Your task to perform on an android device: empty trash in the gmail app Image 0: 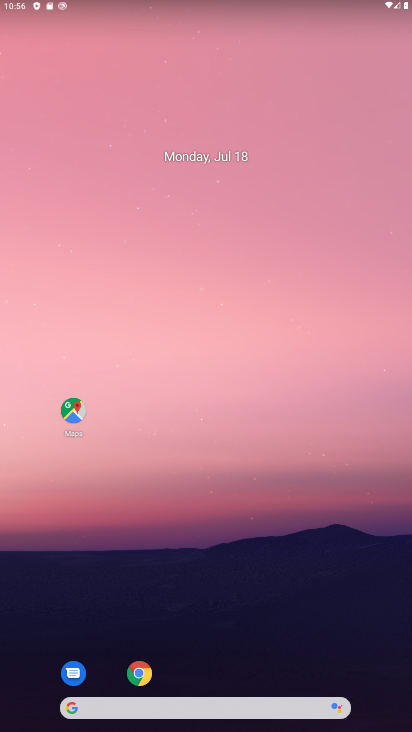
Step 0: press home button
Your task to perform on an android device: empty trash in the gmail app Image 1: 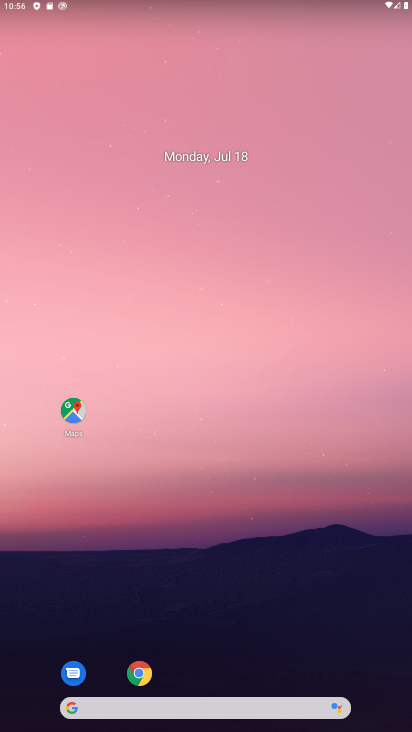
Step 1: drag from (231, 671) to (247, 32)
Your task to perform on an android device: empty trash in the gmail app Image 2: 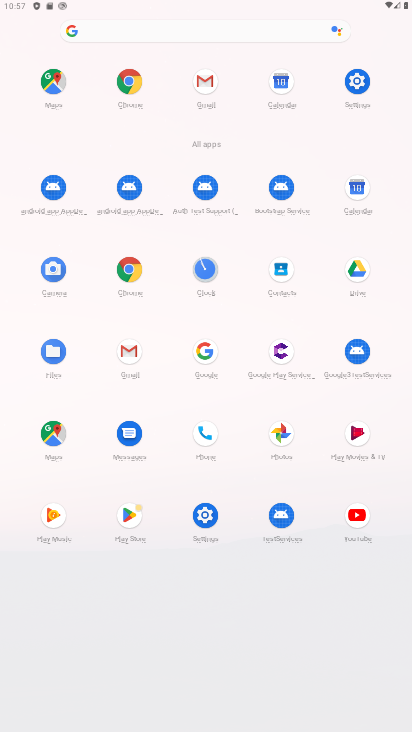
Step 2: click (127, 349)
Your task to perform on an android device: empty trash in the gmail app Image 3: 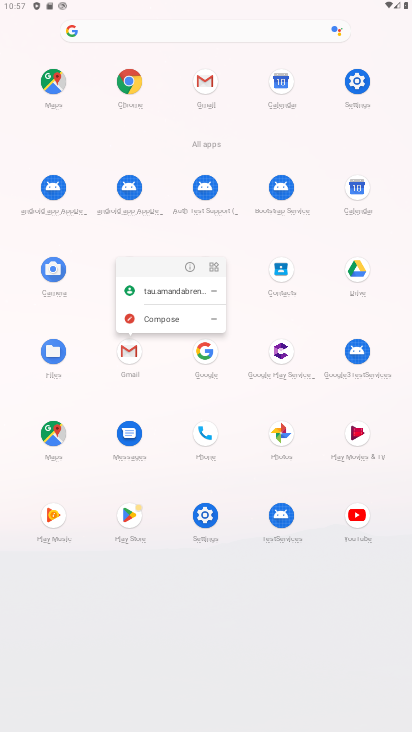
Step 3: click (127, 347)
Your task to perform on an android device: empty trash in the gmail app Image 4: 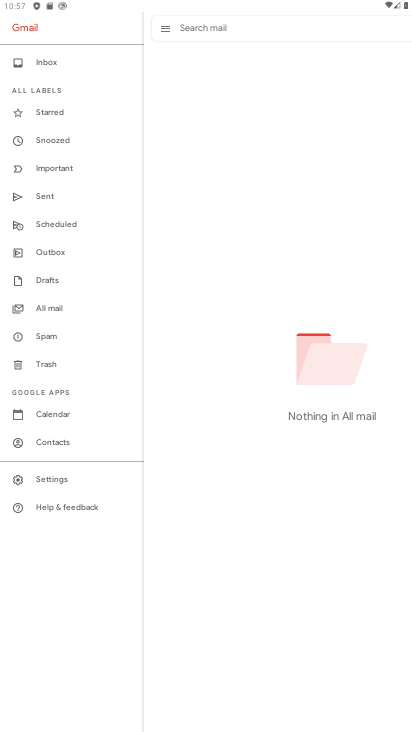
Step 4: click (39, 360)
Your task to perform on an android device: empty trash in the gmail app Image 5: 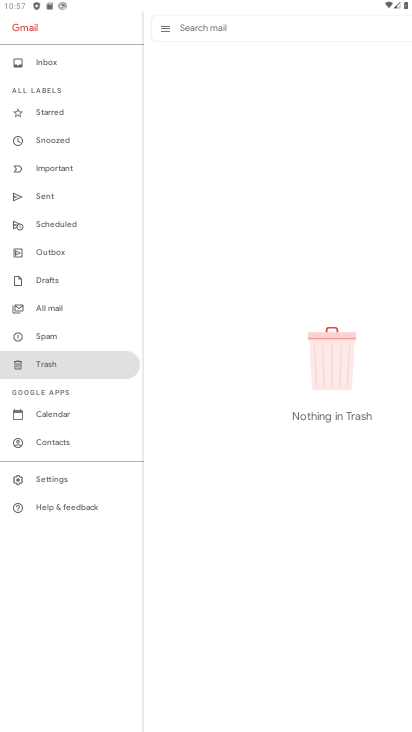
Step 5: task complete